Your task to perform on an android device: Open calendar and show me the fourth week of next month Image 0: 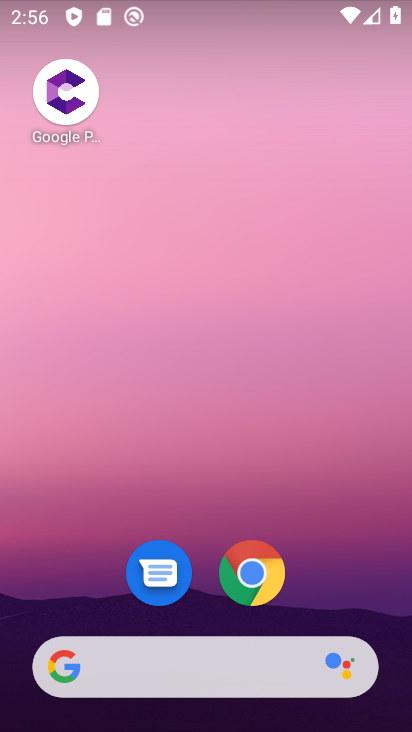
Step 0: drag from (328, 602) to (298, 1)
Your task to perform on an android device: Open calendar and show me the fourth week of next month Image 1: 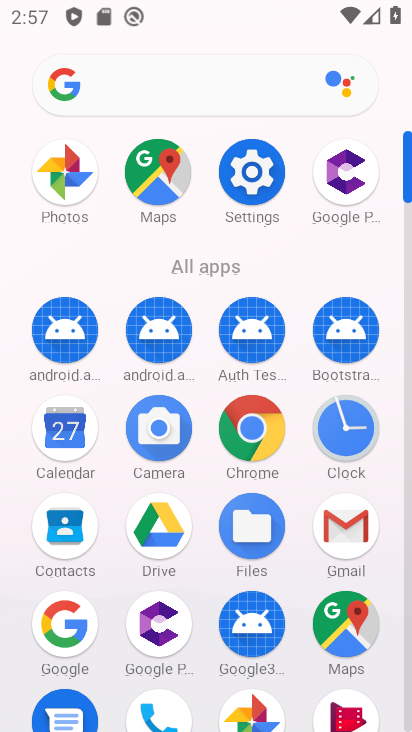
Step 1: click (61, 438)
Your task to perform on an android device: Open calendar and show me the fourth week of next month Image 2: 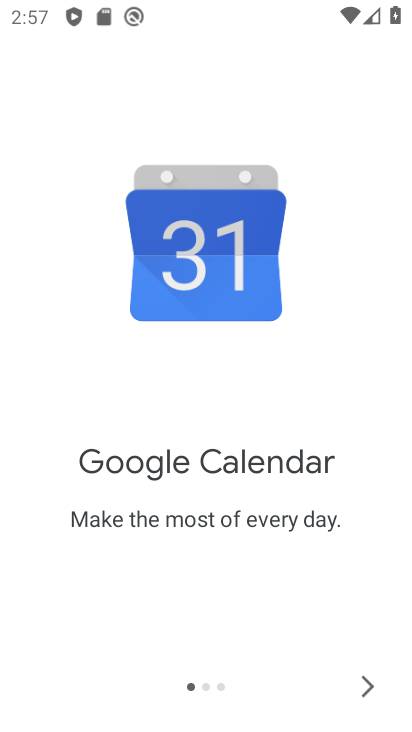
Step 2: click (359, 681)
Your task to perform on an android device: Open calendar and show me the fourth week of next month Image 3: 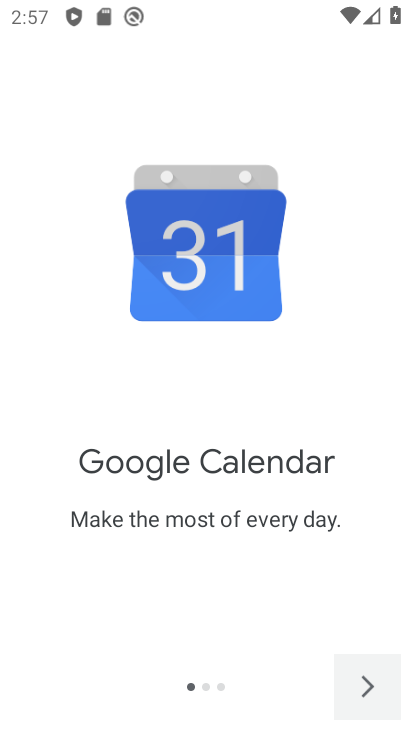
Step 3: click (358, 679)
Your task to perform on an android device: Open calendar and show me the fourth week of next month Image 4: 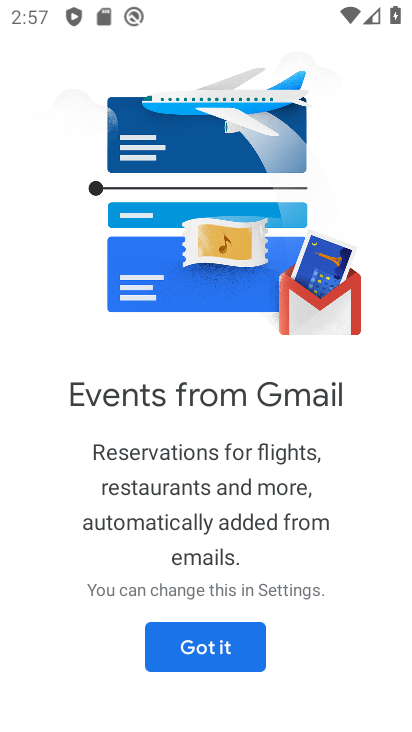
Step 4: click (193, 648)
Your task to perform on an android device: Open calendar and show me the fourth week of next month Image 5: 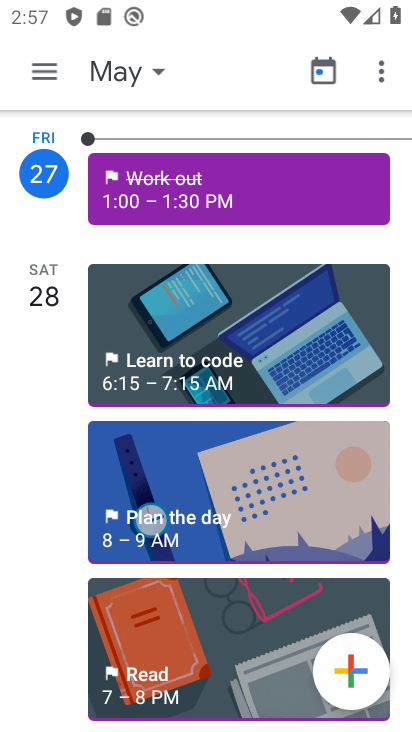
Step 5: click (118, 80)
Your task to perform on an android device: Open calendar and show me the fourth week of next month Image 6: 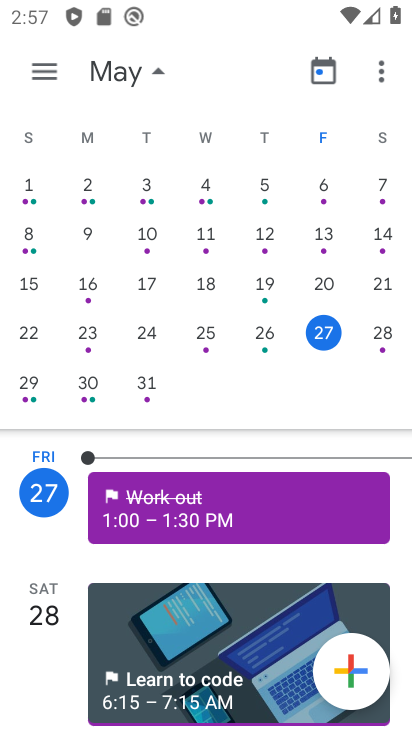
Step 6: drag from (372, 355) to (39, 394)
Your task to perform on an android device: Open calendar and show me the fourth week of next month Image 7: 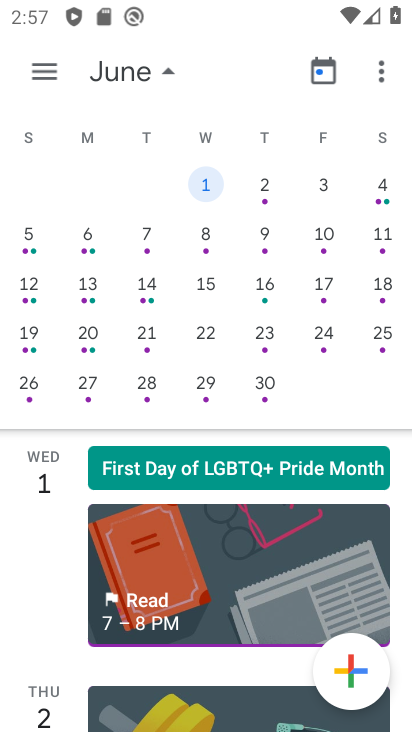
Step 7: click (39, 337)
Your task to perform on an android device: Open calendar and show me the fourth week of next month Image 8: 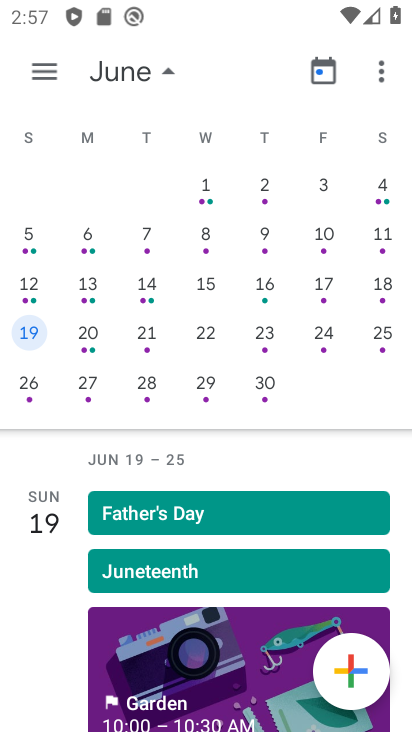
Step 8: task complete